Your task to perform on an android device: install app "Upside-Cash back on gas & food" Image 0: 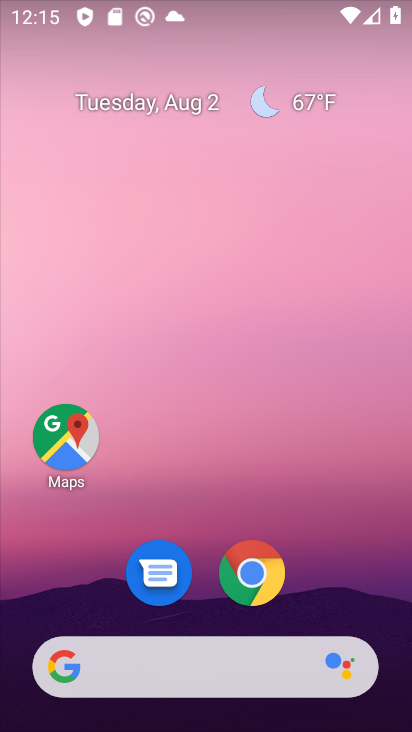
Step 0: drag from (214, 632) to (141, 398)
Your task to perform on an android device: install app "Upside-Cash back on gas & food" Image 1: 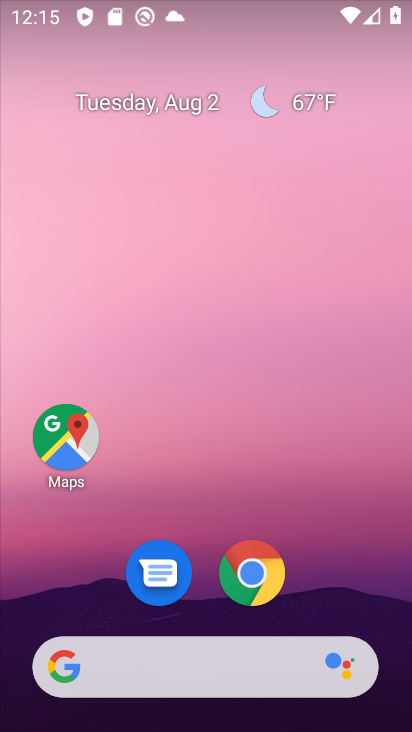
Step 1: drag from (216, 621) to (273, 135)
Your task to perform on an android device: install app "Upside-Cash back on gas & food" Image 2: 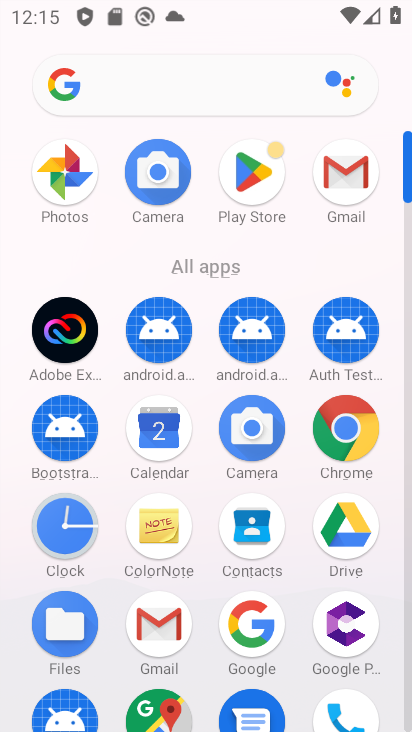
Step 2: click (348, 170)
Your task to perform on an android device: install app "Upside-Cash back on gas & food" Image 3: 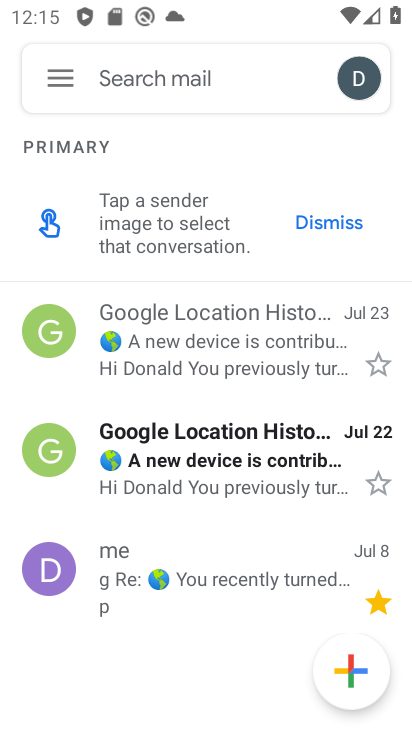
Step 3: press home button
Your task to perform on an android device: install app "Upside-Cash back on gas & food" Image 4: 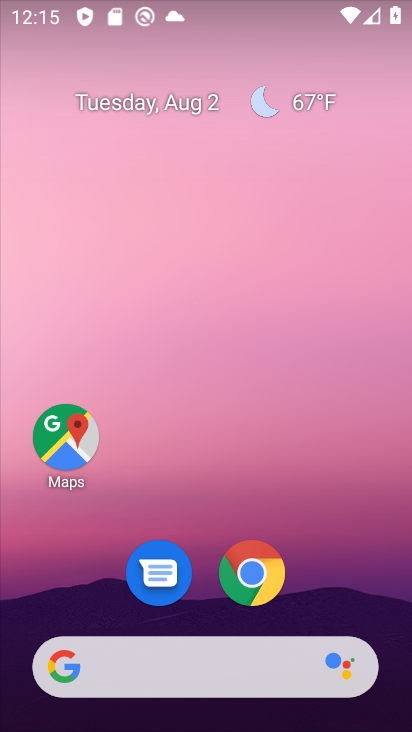
Step 4: drag from (178, 649) to (203, 188)
Your task to perform on an android device: install app "Upside-Cash back on gas & food" Image 5: 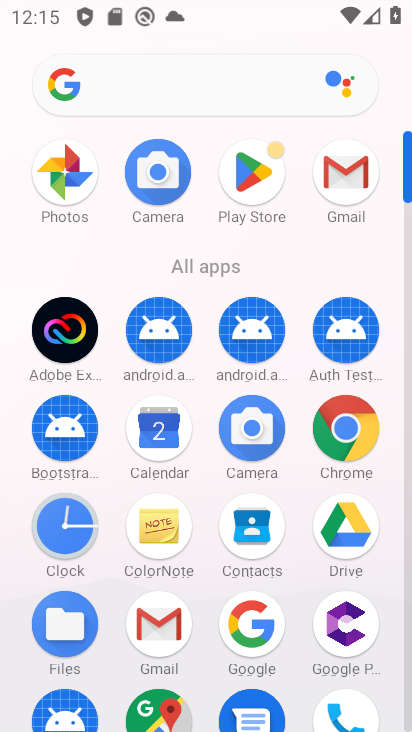
Step 5: click (331, 181)
Your task to perform on an android device: install app "Upside-Cash back on gas & food" Image 6: 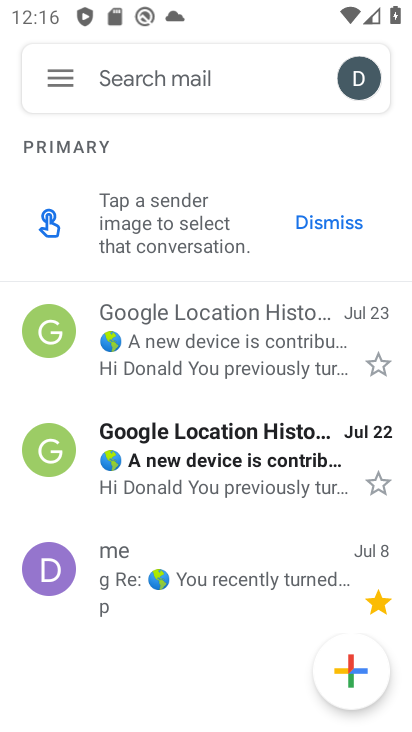
Step 6: press home button
Your task to perform on an android device: install app "Upside-Cash back on gas & food" Image 7: 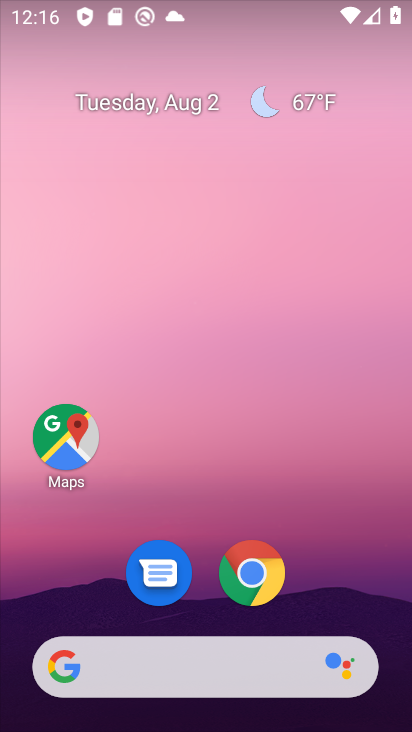
Step 7: drag from (275, 660) to (250, 46)
Your task to perform on an android device: install app "Upside-Cash back on gas & food" Image 8: 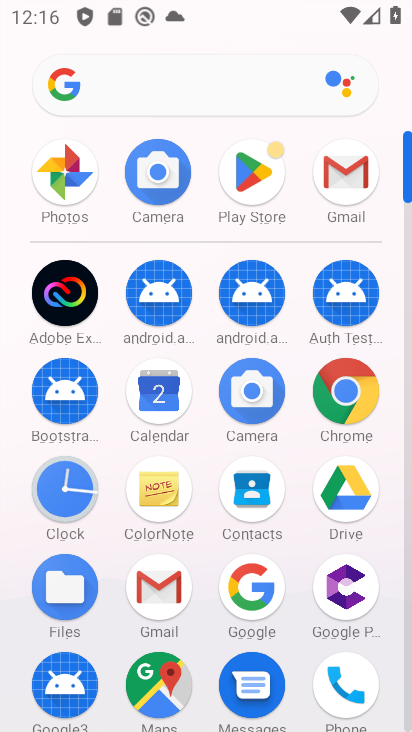
Step 8: click (255, 173)
Your task to perform on an android device: install app "Upside-Cash back on gas & food" Image 9: 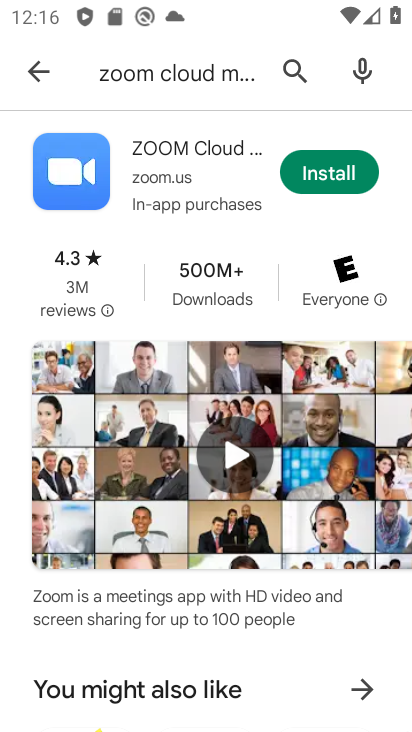
Step 9: click (286, 67)
Your task to perform on an android device: install app "Upside-Cash back on gas & food" Image 10: 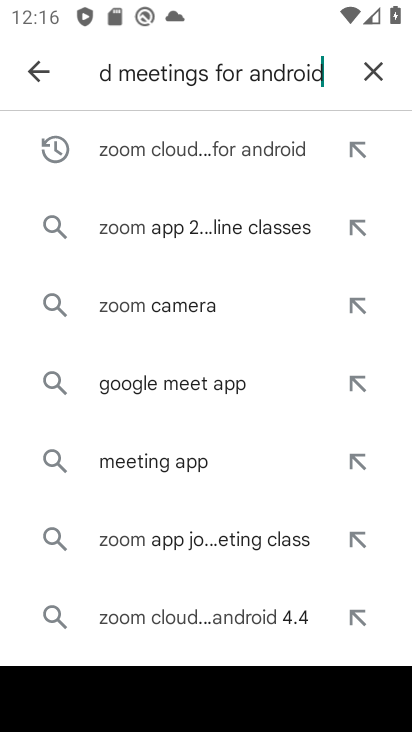
Step 10: click (366, 68)
Your task to perform on an android device: install app "Upside-Cash back on gas & food" Image 11: 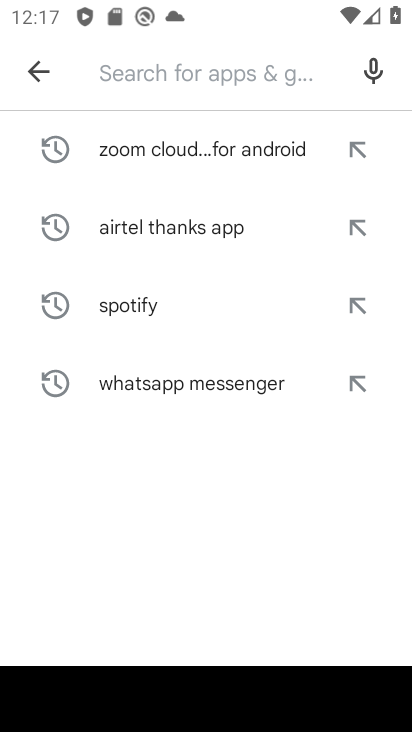
Step 11: type "upside-cash back on gas & food"
Your task to perform on an android device: install app "Upside-Cash back on gas & food" Image 12: 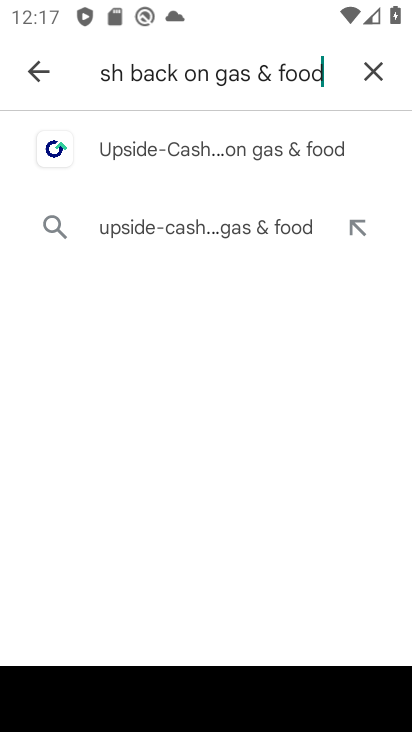
Step 12: click (328, 151)
Your task to perform on an android device: install app "Upside-Cash back on gas & food" Image 13: 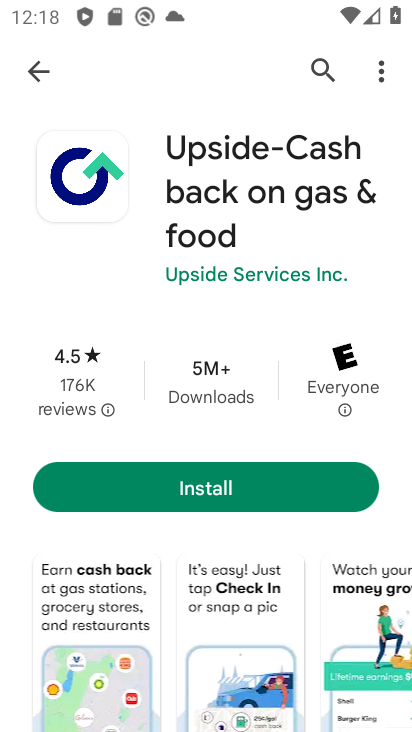
Step 13: click (154, 492)
Your task to perform on an android device: install app "Upside-Cash back on gas & food" Image 14: 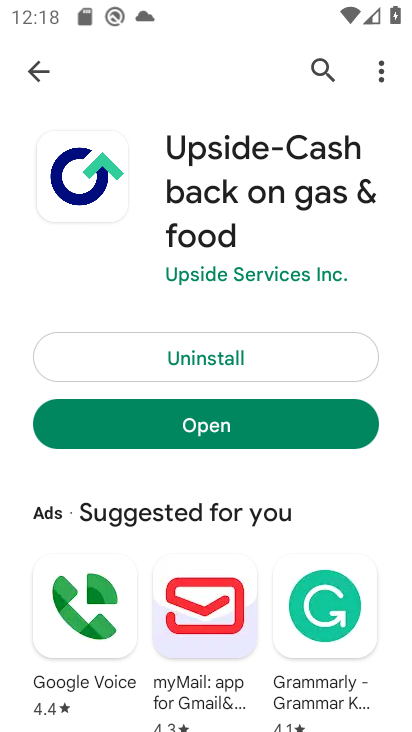
Step 14: task complete